Your task to perform on an android device: check out phone information Image 0: 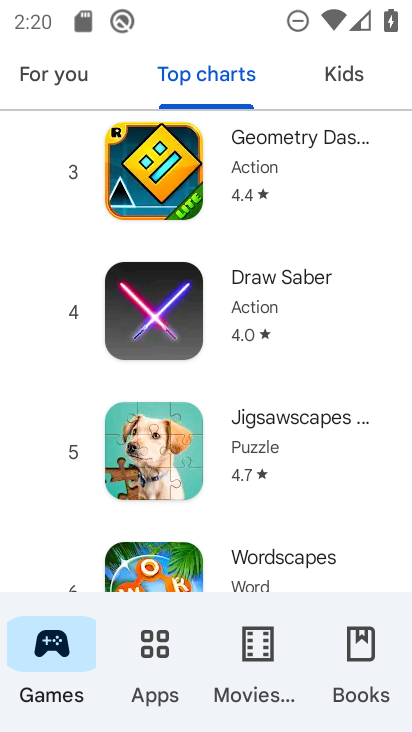
Step 0: press home button
Your task to perform on an android device: check out phone information Image 1: 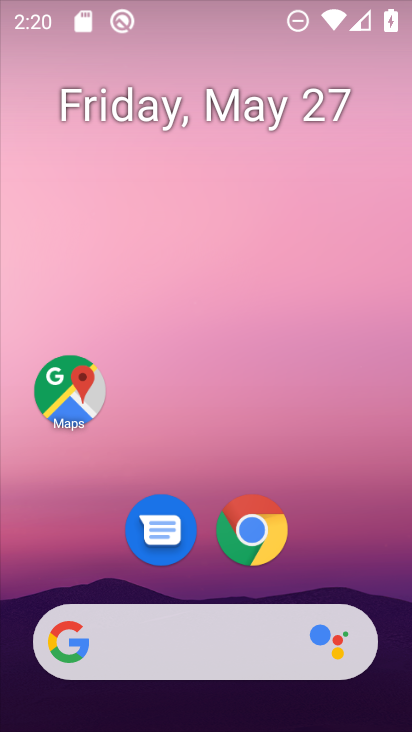
Step 1: drag from (133, 709) to (154, 93)
Your task to perform on an android device: check out phone information Image 2: 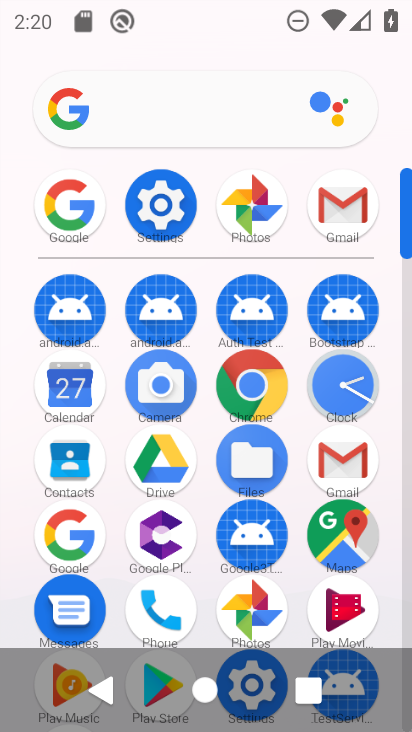
Step 2: click (158, 211)
Your task to perform on an android device: check out phone information Image 3: 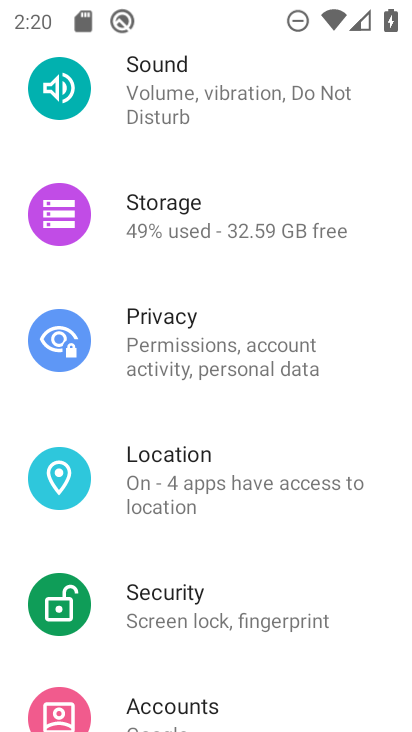
Step 3: drag from (232, 702) to (225, 176)
Your task to perform on an android device: check out phone information Image 4: 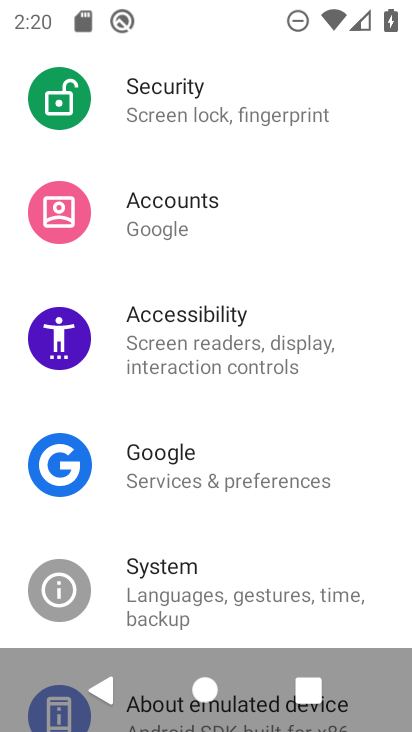
Step 4: drag from (312, 595) to (295, 314)
Your task to perform on an android device: check out phone information Image 5: 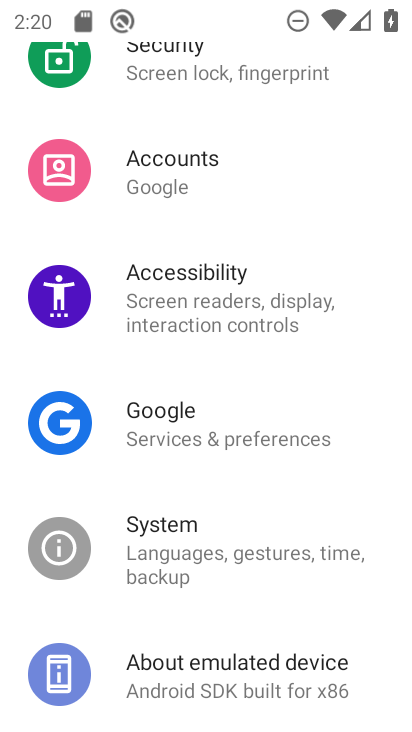
Step 5: click (198, 689)
Your task to perform on an android device: check out phone information Image 6: 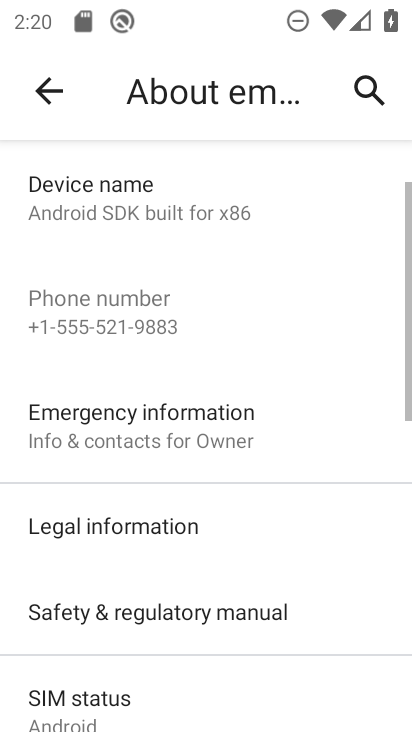
Step 6: task complete